Your task to perform on an android device: Check the weather Image 0: 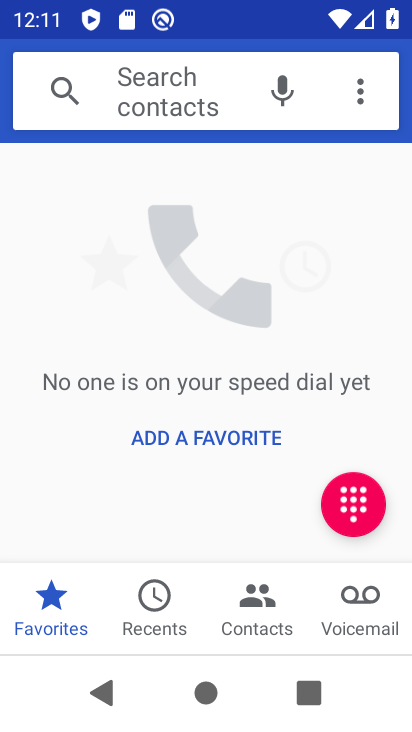
Step 0: press home button
Your task to perform on an android device: Check the weather Image 1: 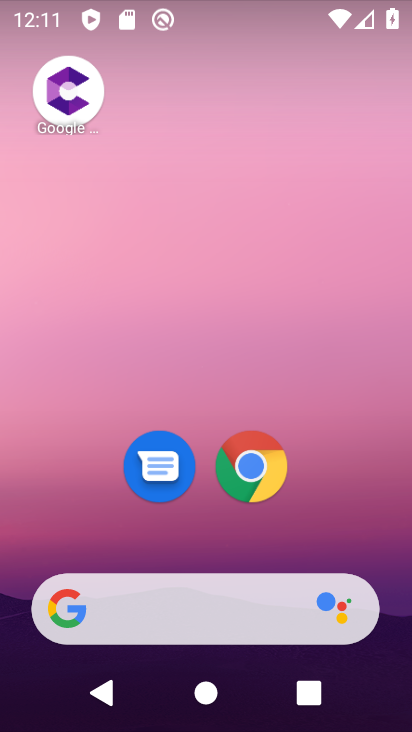
Step 1: click (246, 454)
Your task to perform on an android device: Check the weather Image 2: 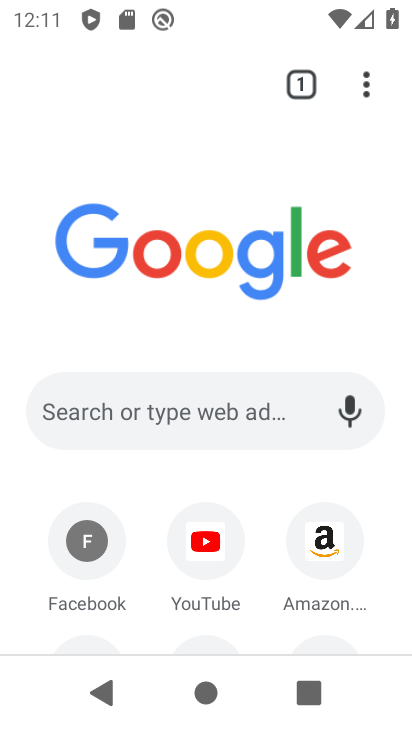
Step 2: click (244, 397)
Your task to perform on an android device: Check the weather Image 3: 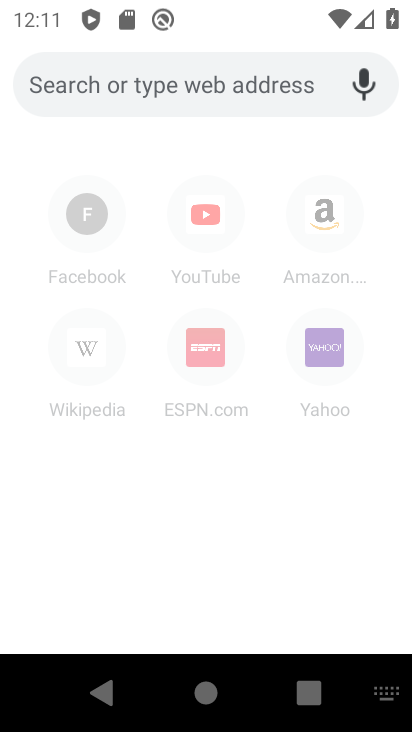
Step 3: type "weather"
Your task to perform on an android device: Check the weather Image 4: 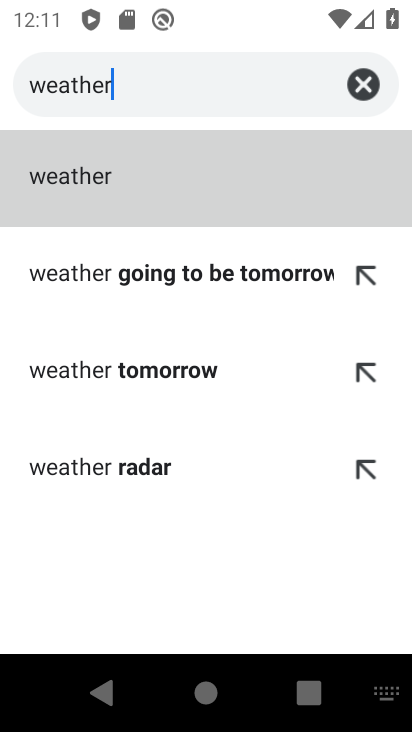
Step 4: type ""
Your task to perform on an android device: Check the weather Image 5: 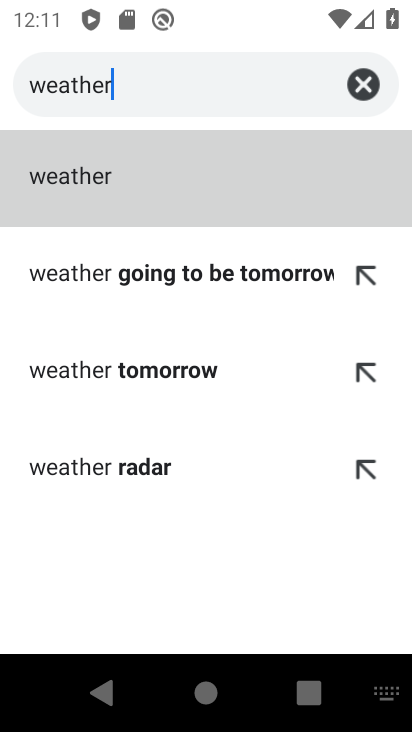
Step 5: click (165, 201)
Your task to perform on an android device: Check the weather Image 6: 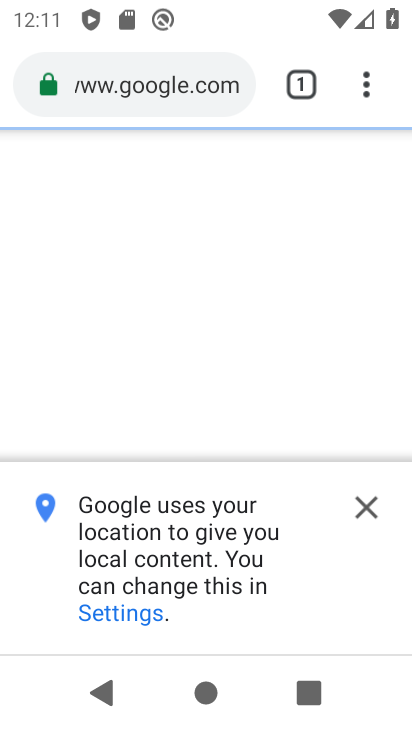
Step 6: task complete